Your task to perform on an android device: change notifications settings Image 0: 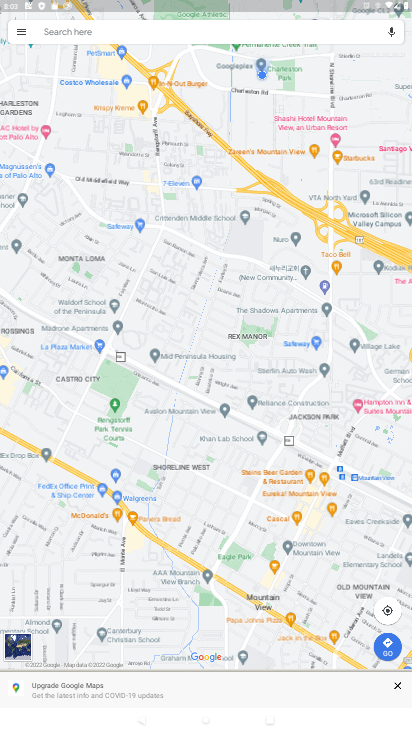
Step 0: press home button
Your task to perform on an android device: change notifications settings Image 1: 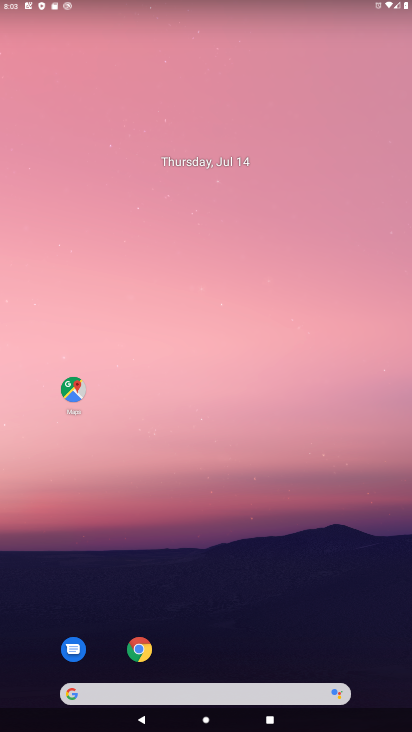
Step 1: drag from (209, 665) to (259, 49)
Your task to perform on an android device: change notifications settings Image 2: 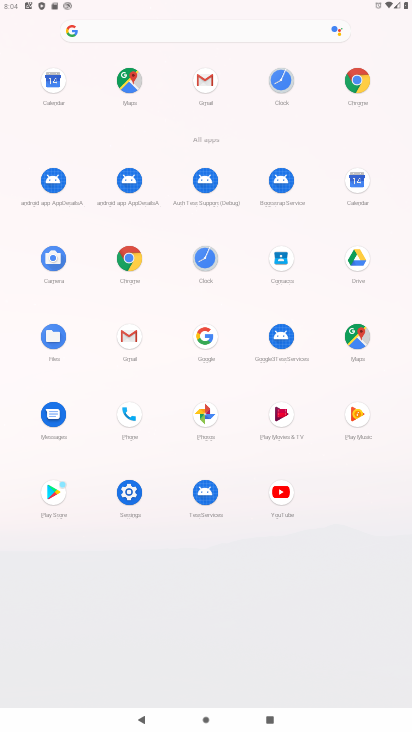
Step 2: click (126, 483)
Your task to perform on an android device: change notifications settings Image 3: 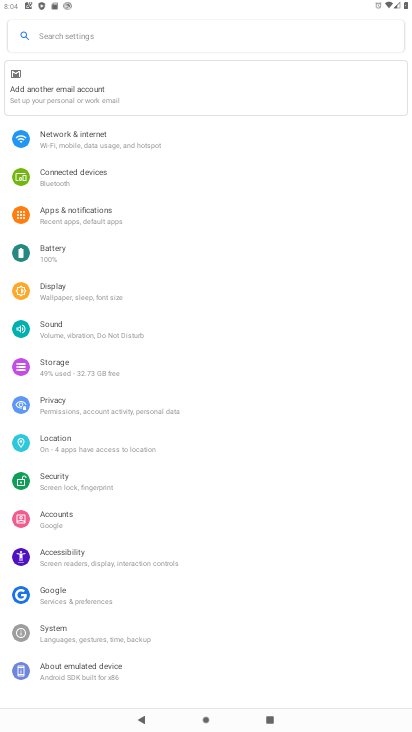
Step 3: click (120, 213)
Your task to perform on an android device: change notifications settings Image 4: 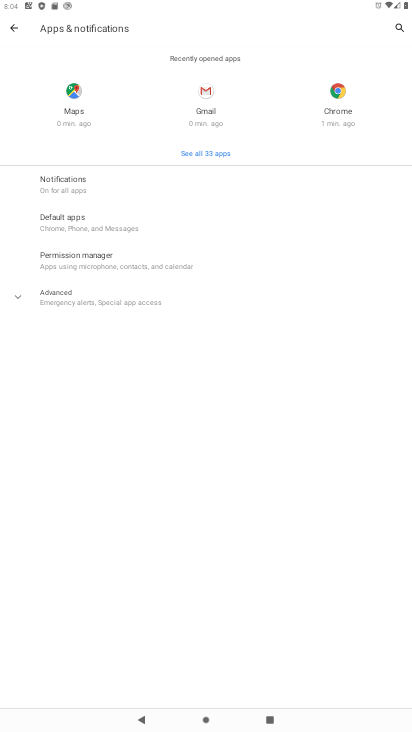
Step 4: click (90, 178)
Your task to perform on an android device: change notifications settings Image 5: 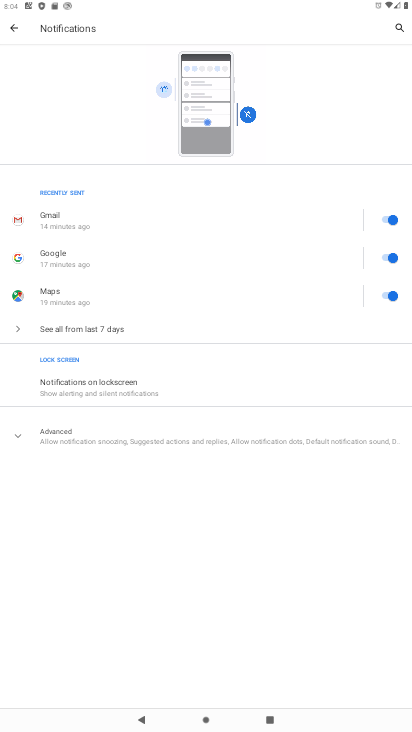
Step 5: click (20, 433)
Your task to perform on an android device: change notifications settings Image 6: 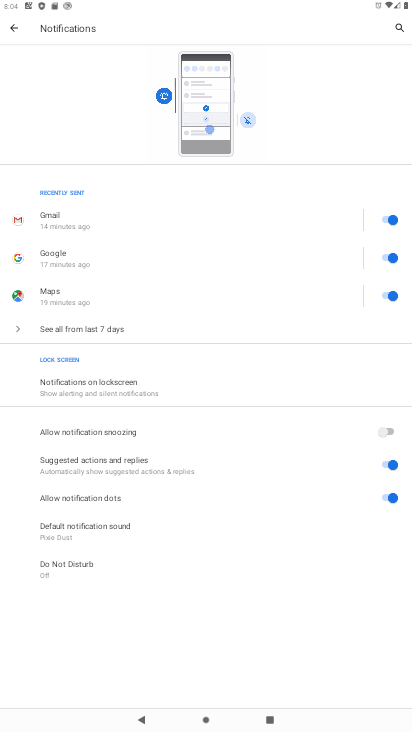
Step 6: task complete